Your task to perform on an android device: Check the weather Image 0: 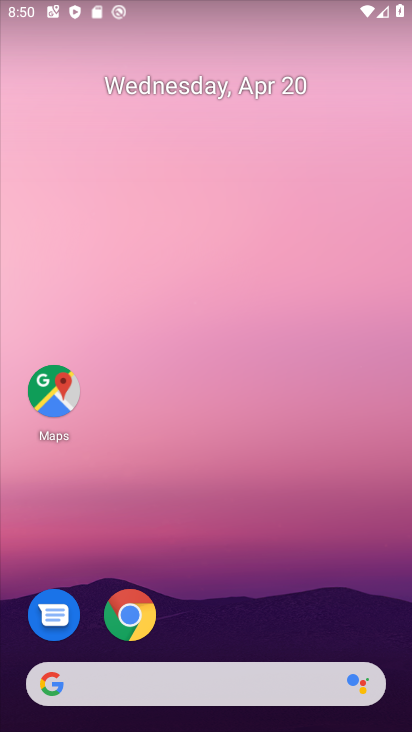
Step 0: drag from (221, 641) to (143, 87)
Your task to perform on an android device: Check the weather Image 1: 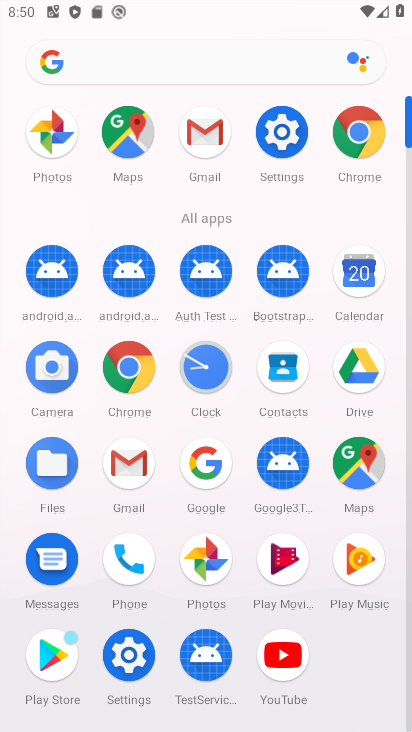
Step 1: click (219, 463)
Your task to perform on an android device: Check the weather Image 2: 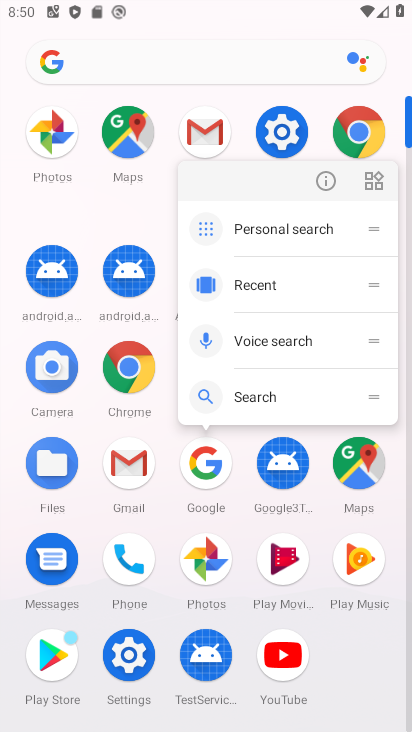
Step 2: click (211, 466)
Your task to perform on an android device: Check the weather Image 3: 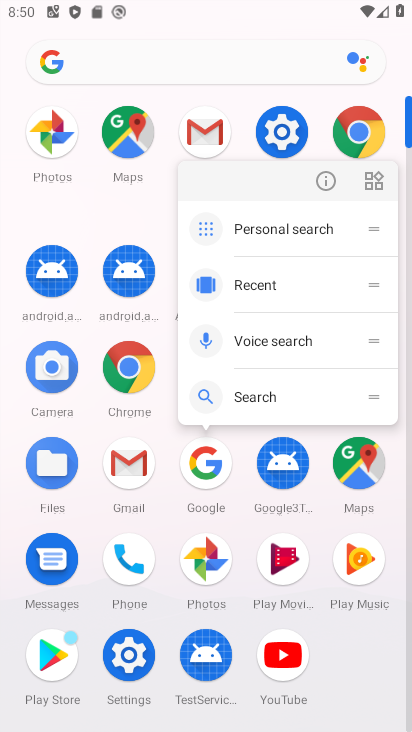
Step 3: click (207, 467)
Your task to perform on an android device: Check the weather Image 4: 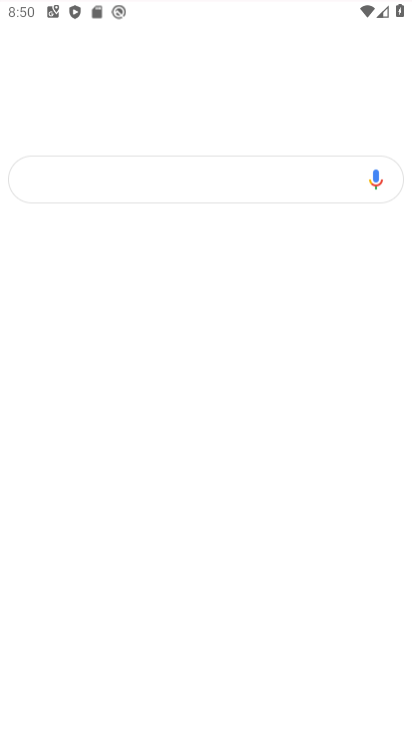
Step 4: click (199, 473)
Your task to perform on an android device: Check the weather Image 5: 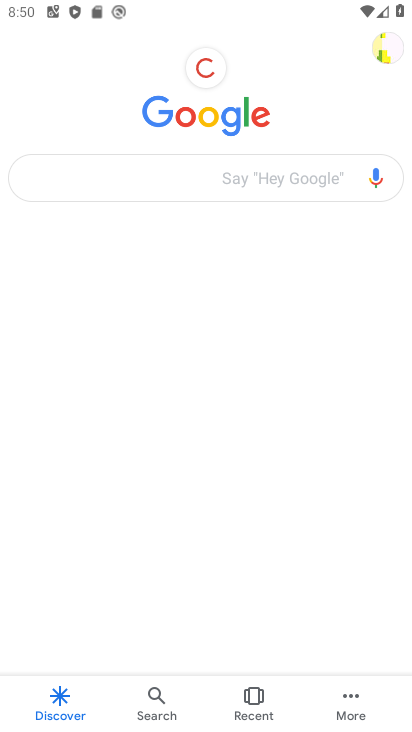
Step 5: click (176, 152)
Your task to perform on an android device: Check the weather Image 6: 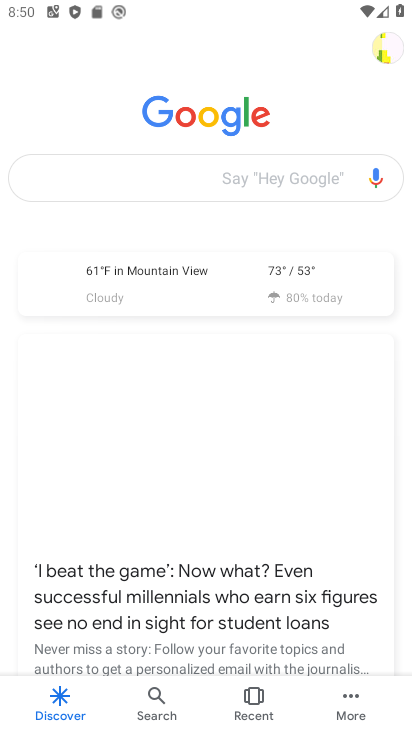
Step 6: click (178, 184)
Your task to perform on an android device: Check the weather Image 7: 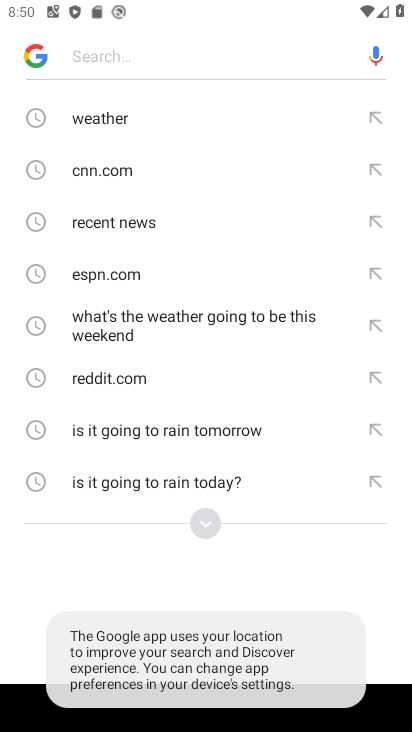
Step 7: click (104, 102)
Your task to perform on an android device: Check the weather Image 8: 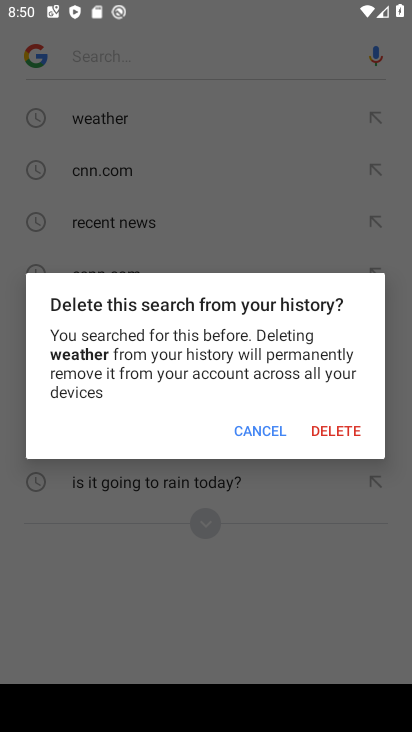
Step 8: click (267, 431)
Your task to perform on an android device: Check the weather Image 9: 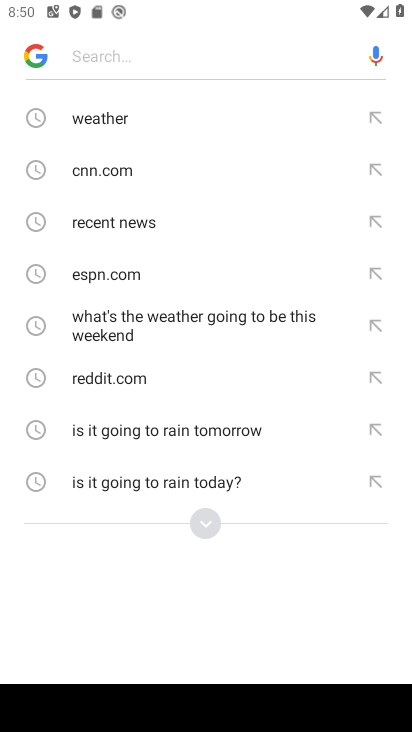
Step 9: click (173, 122)
Your task to perform on an android device: Check the weather Image 10: 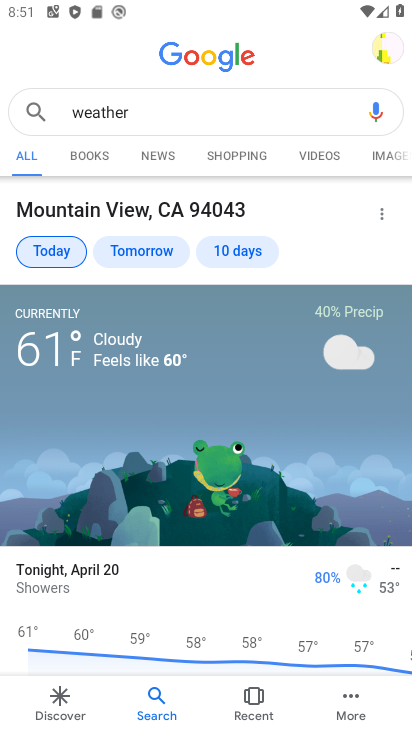
Step 10: task complete